Your task to perform on an android device: turn on javascript in the chrome app Image 0: 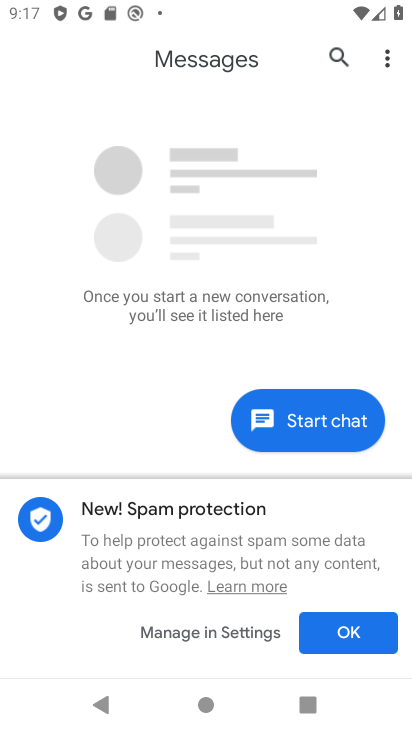
Step 0: press home button
Your task to perform on an android device: turn on javascript in the chrome app Image 1: 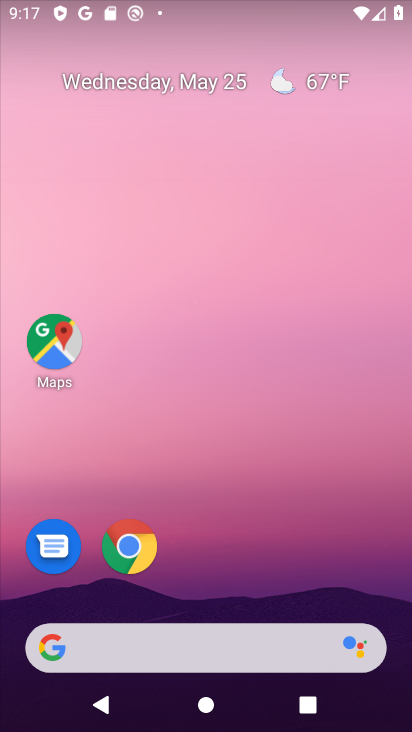
Step 1: click (130, 539)
Your task to perform on an android device: turn on javascript in the chrome app Image 2: 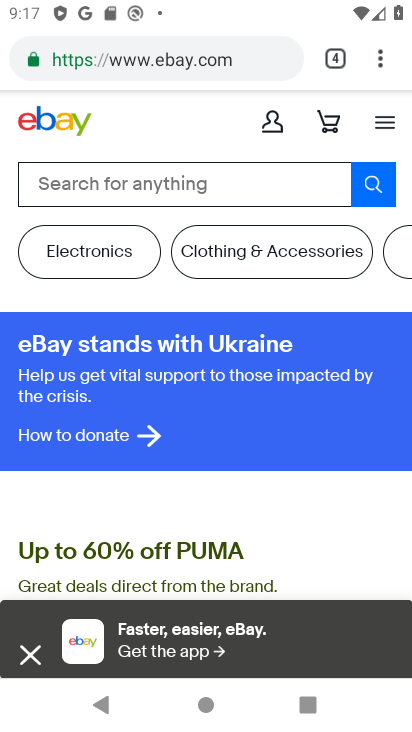
Step 2: drag from (381, 49) to (223, 582)
Your task to perform on an android device: turn on javascript in the chrome app Image 3: 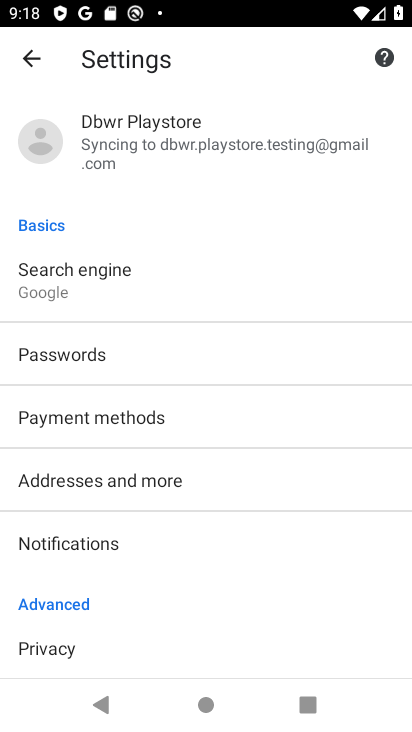
Step 3: drag from (157, 663) to (252, 295)
Your task to perform on an android device: turn on javascript in the chrome app Image 4: 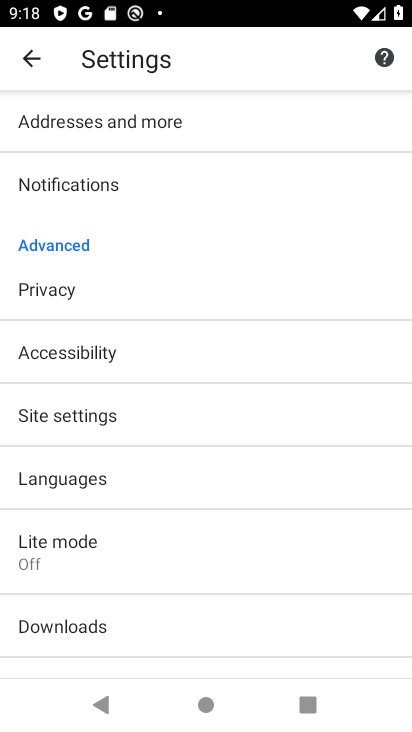
Step 4: click (149, 420)
Your task to perform on an android device: turn on javascript in the chrome app Image 5: 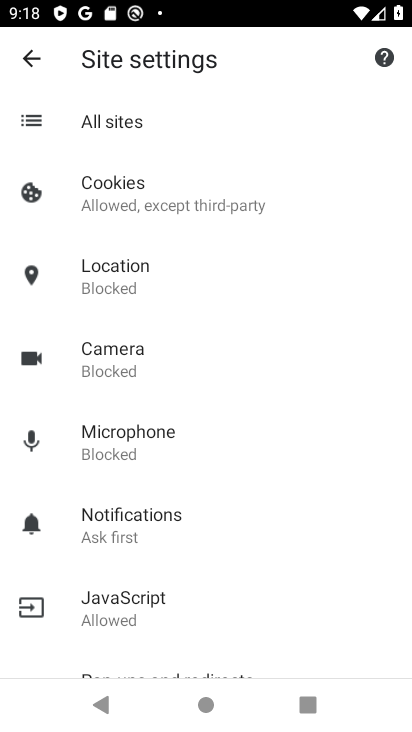
Step 5: drag from (130, 621) to (185, 426)
Your task to perform on an android device: turn on javascript in the chrome app Image 6: 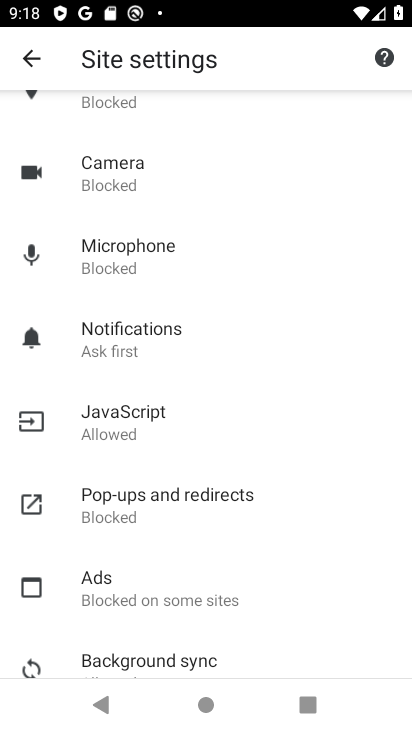
Step 6: click (202, 410)
Your task to perform on an android device: turn on javascript in the chrome app Image 7: 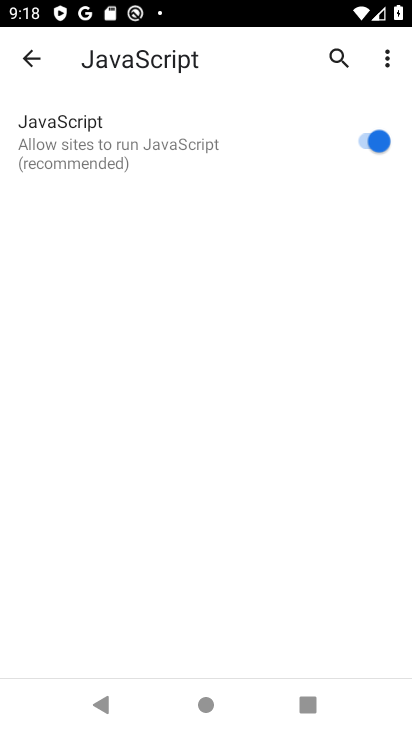
Step 7: task complete